Your task to perform on an android device: turn off translation in the chrome app Image 0: 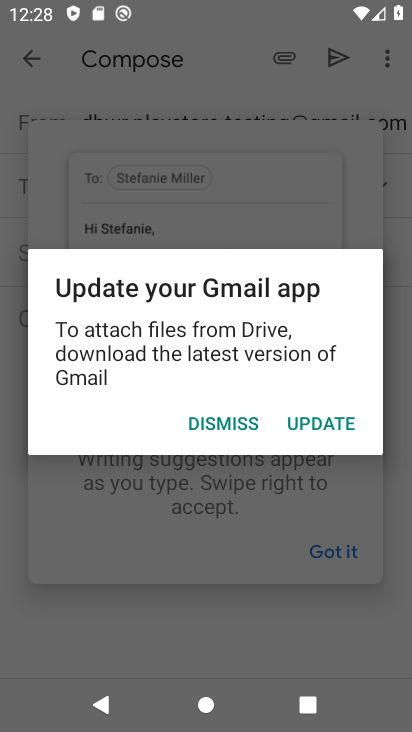
Step 0: press home button
Your task to perform on an android device: turn off translation in the chrome app Image 1: 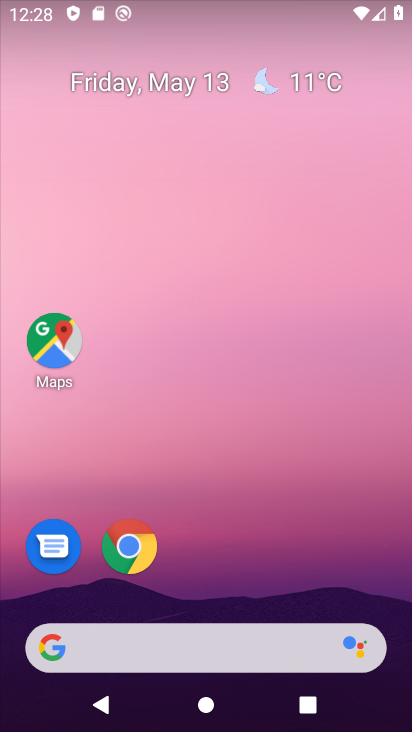
Step 1: click (142, 567)
Your task to perform on an android device: turn off translation in the chrome app Image 2: 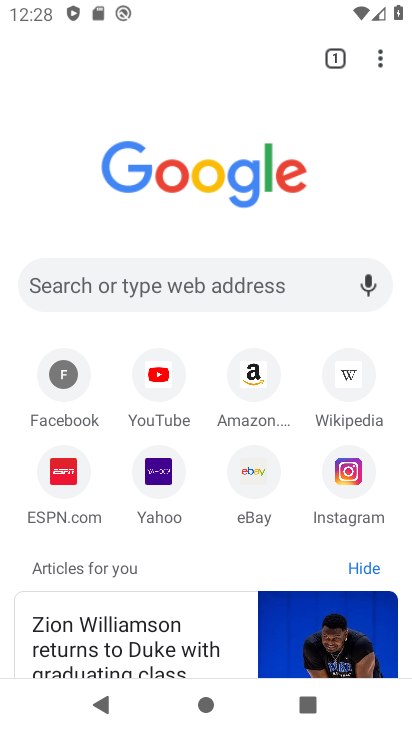
Step 2: click (384, 66)
Your task to perform on an android device: turn off translation in the chrome app Image 3: 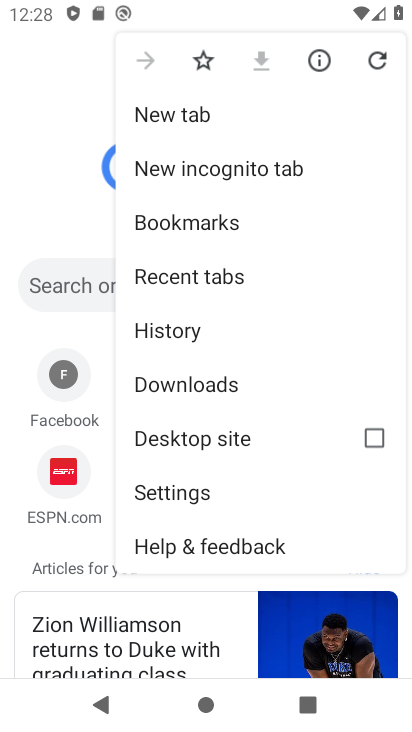
Step 3: task complete